Your task to perform on an android device: Open Google Chrome and open the bookmarks view Image 0: 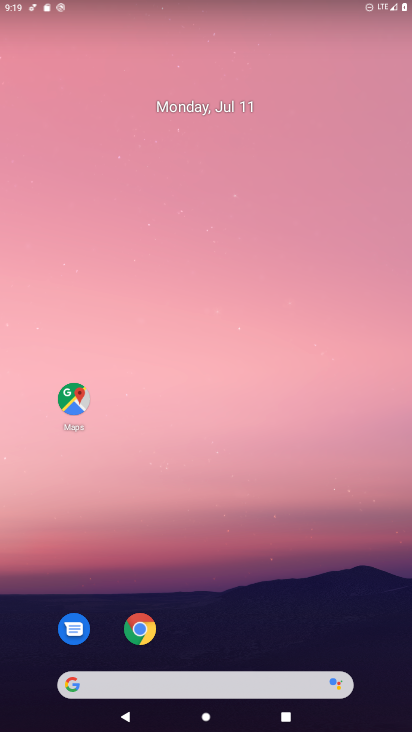
Step 0: click (140, 634)
Your task to perform on an android device: Open Google Chrome and open the bookmarks view Image 1: 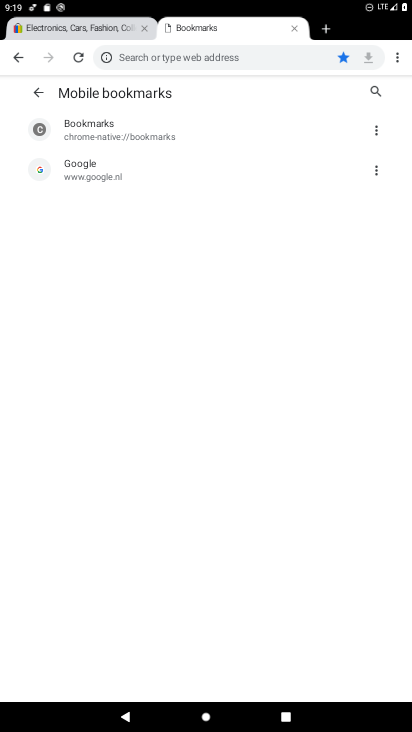
Step 1: task complete